Your task to perform on an android device: Go to notification settings Image 0: 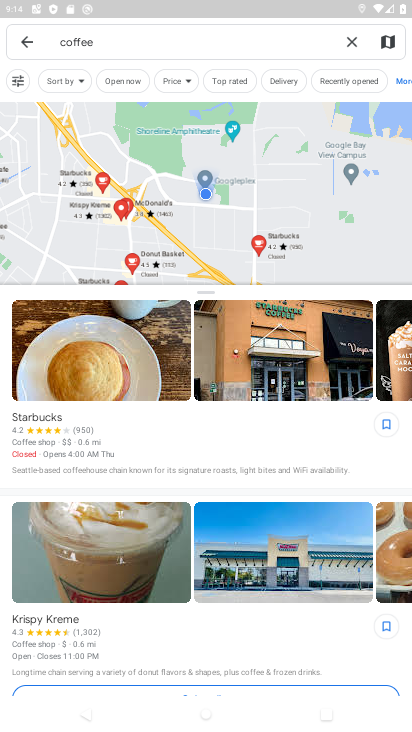
Step 0: press home button
Your task to perform on an android device: Go to notification settings Image 1: 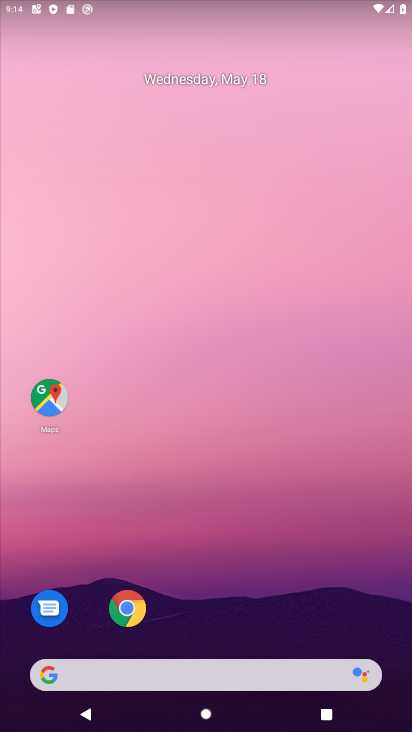
Step 1: drag from (40, 587) to (228, 143)
Your task to perform on an android device: Go to notification settings Image 2: 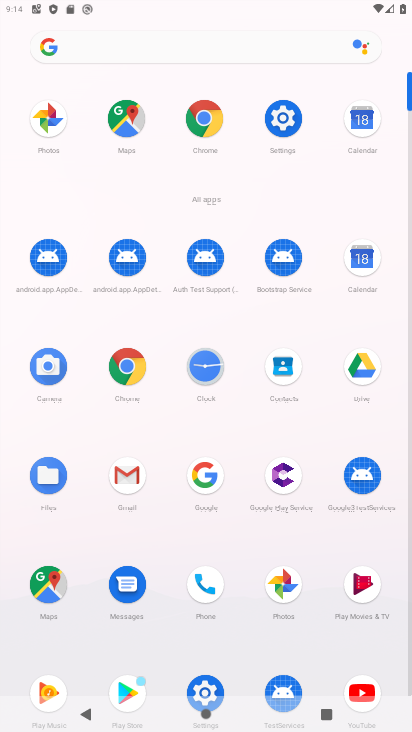
Step 2: click (279, 129)
Your task to perform on an android device: Go to notification settings Image 3: 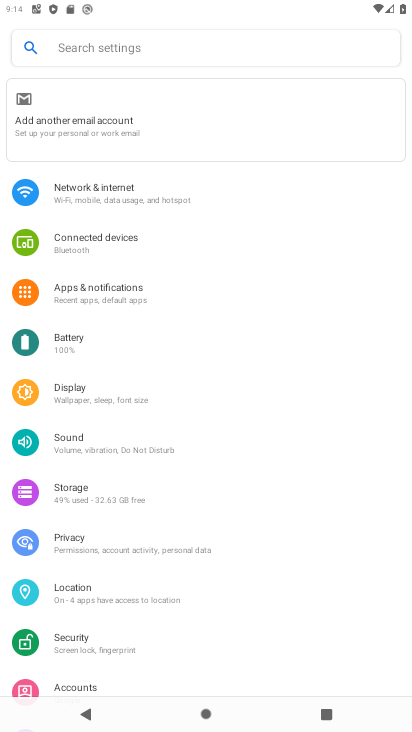
Step 3: drag from (178, 202) to (137, 520)
Your task to perform on an android device: Go to notification settings Image 4: 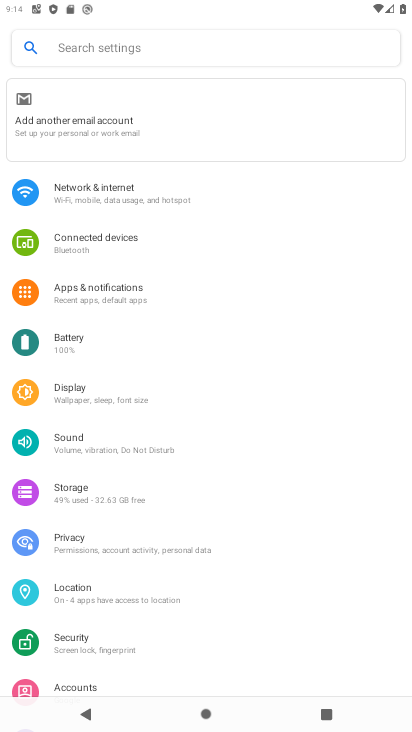
Step 4: click (99, 286)
Your task to perform on an android device: Go to notification settings Image 5: 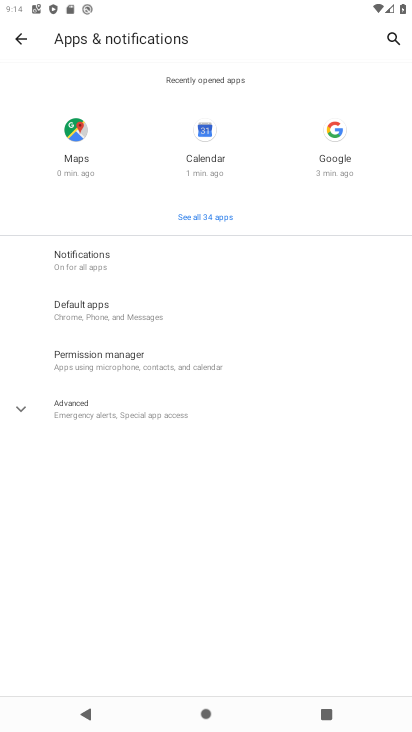
Step 5: click (104, 267)
Your task to perform on an android device: Go to notification settings Image 6: 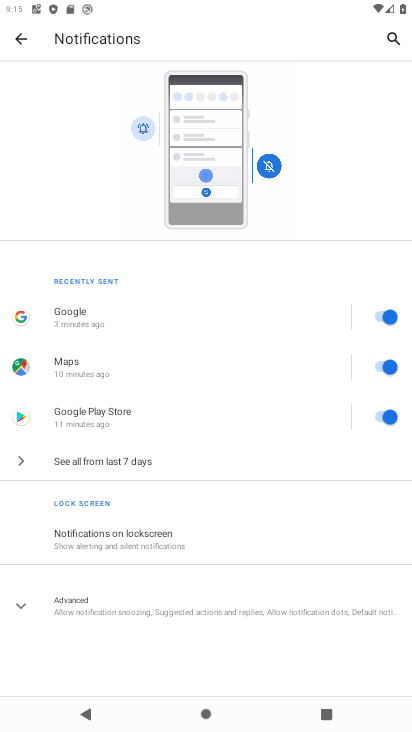
Step 6: task complete